Your task to perform on an android device: toggle airplane mode Image 0: 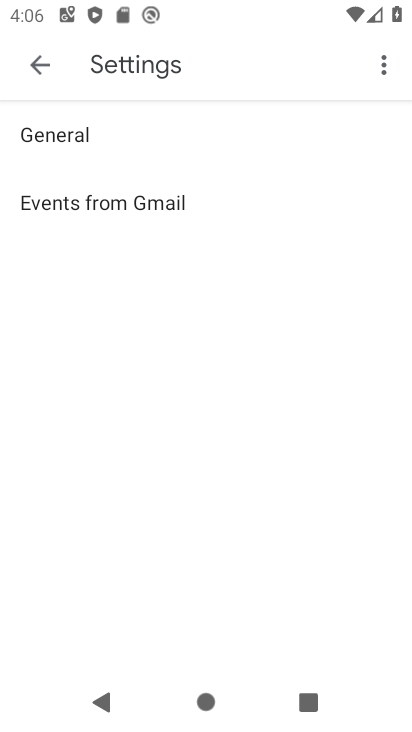
Step 0: press home button
Your task to perform on an android device: toggle airplane mode Image 1: 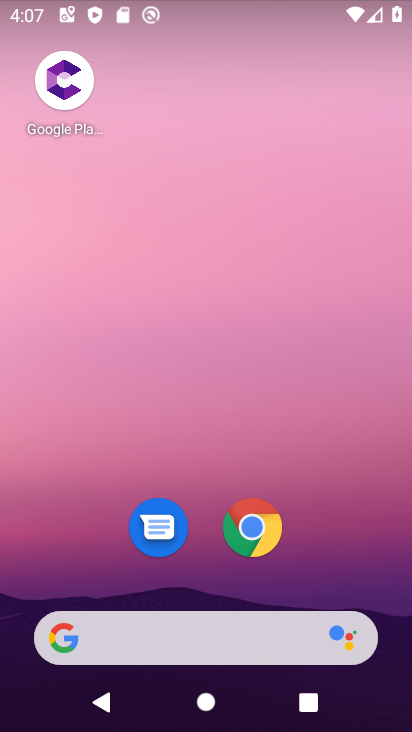
Step 1: drag from (340, 529) to (390, 0)
Your task to perform on an android device: toggle airplane mode Image 2: 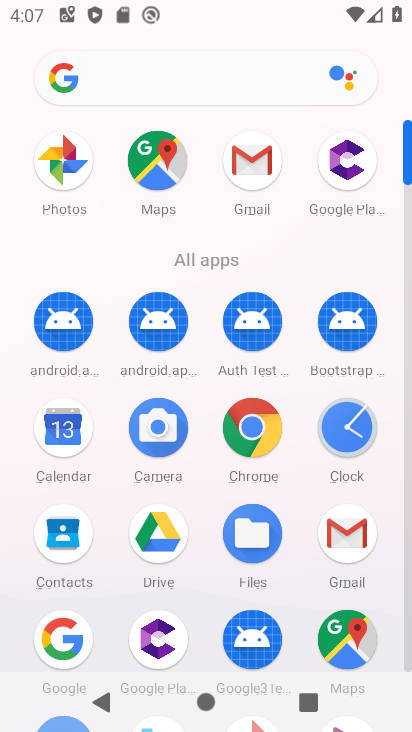
Step 2: click (404, 358)
Your task to perform on an android device: toggle airplane mode Image 3: 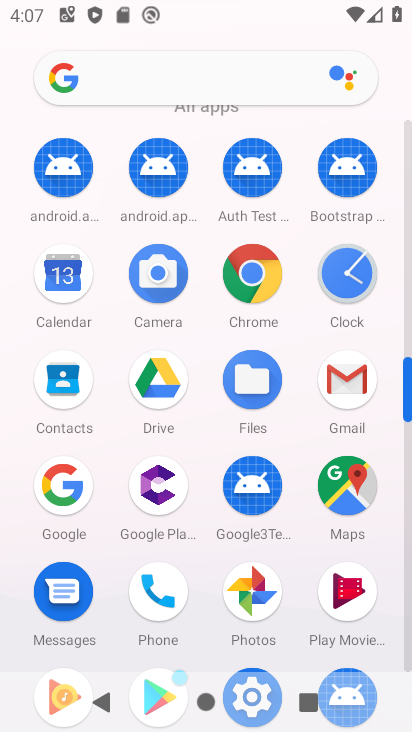
Step 3: click (247, 664)
Your task to perform on an android device: toggle airplane mode Image 4: 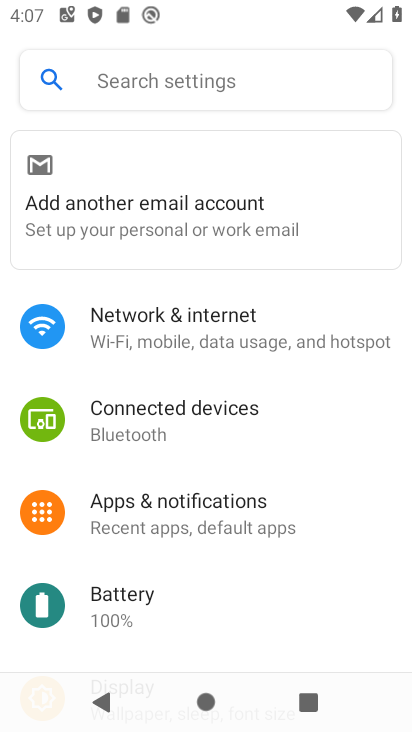
Step 4: click (250, 329)
Your task to perform on an android device: toggle airplane mode Image 5: 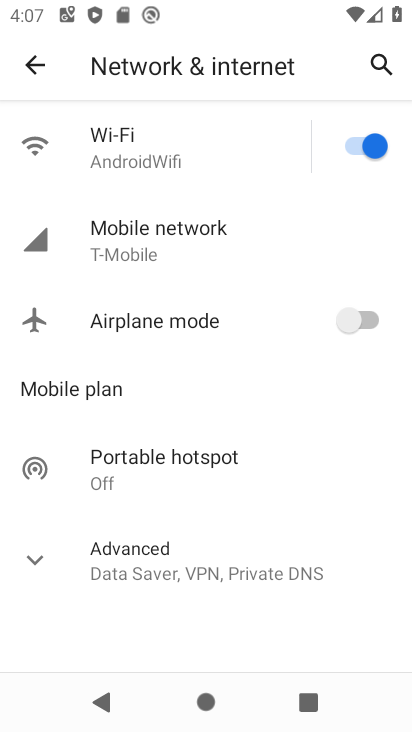
Step 5: click (339, 304)
Your task to perform on an android device: toggle airplane mode Image 6: 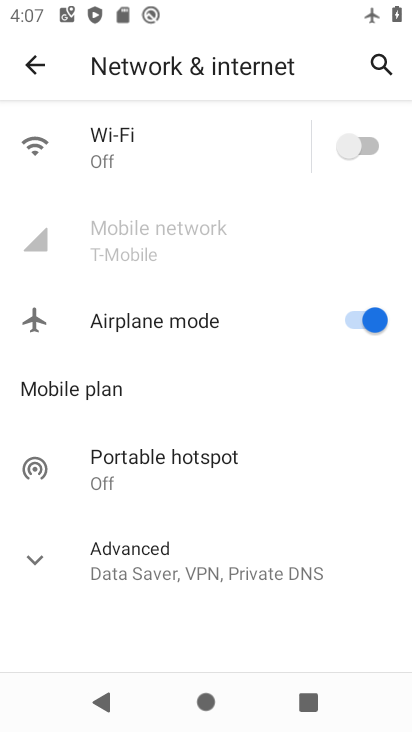
Step 6: task complete